Your task to perform on an android device: Search for sushi restaurants on Maps Image 0: 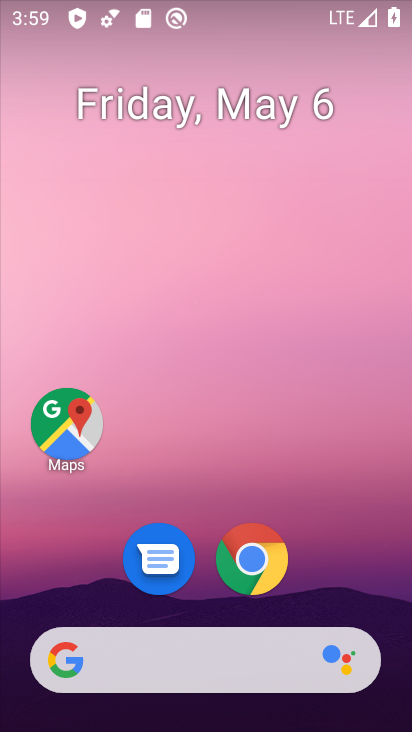
Step 0: click (66, 421)
Your task to perform on an android device: Search for sushi restaurants on Maps Image 1: 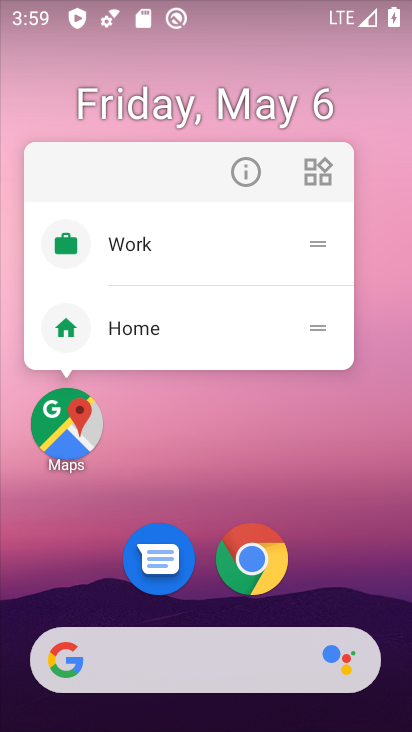
Step 1: click (70, 431)
Your task to perform on an android device: Search for sushi restaurants on Maps Image 2: 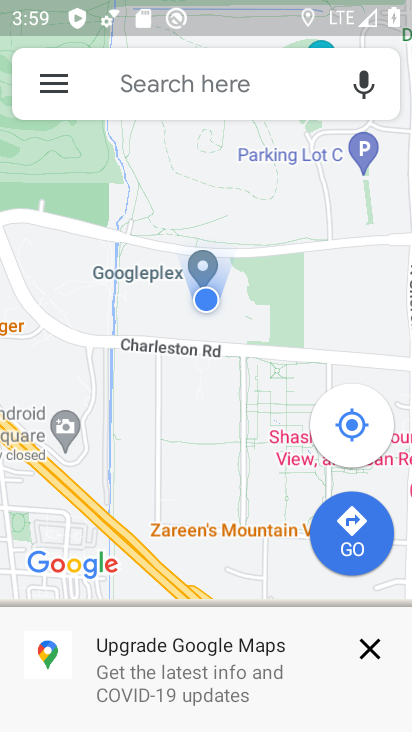
Step 2: click (131, 74)
Your task to perform on an android device: Search for sushi restaurants on Maps Image 3: 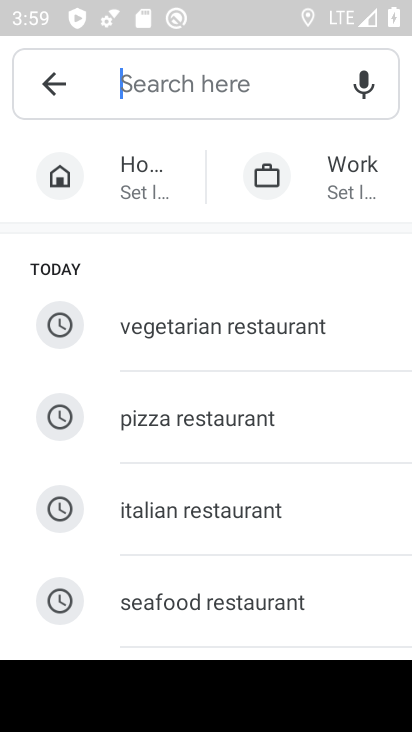
Step 3: drag from (178, 617) to (138, 291)
Your task to perform on an android device: Search for sushi restaurants on Maps Image 4: 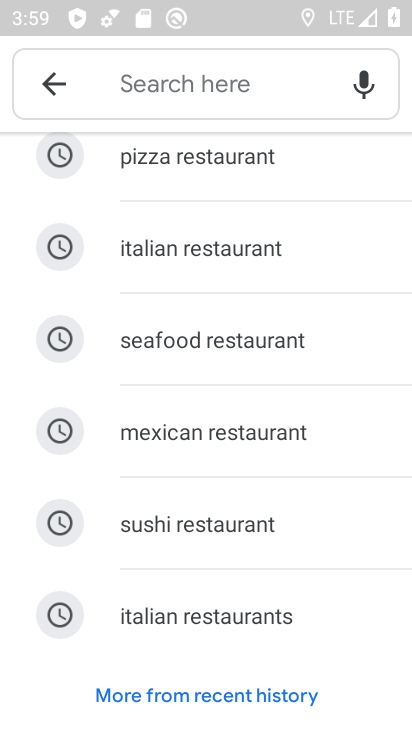
Step 4: click (150, 529)
Your task to perform on an android device: Search for sushi restaurants on Maps Image 5: 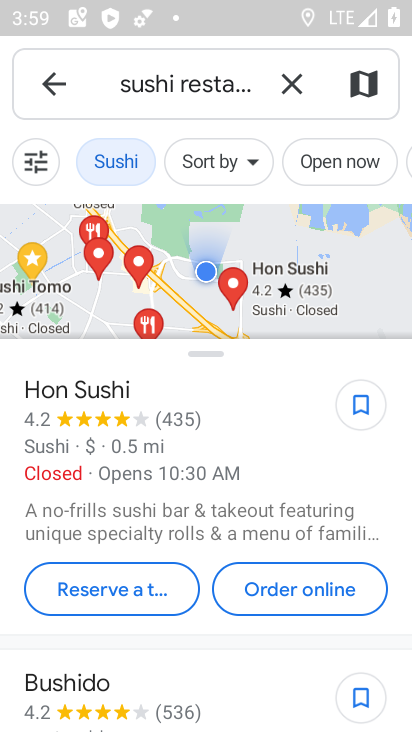
Step 5: task complete